Your task to perform on an android device: Show me popular videos on Youtube Image 0: 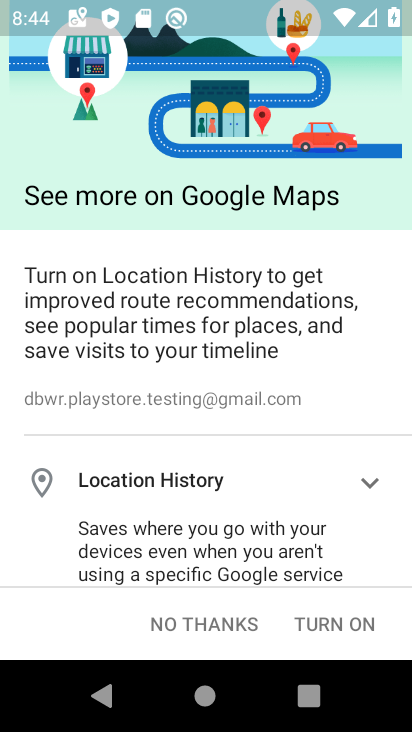
Step 0: press back button
Your task to perform on an android device: Show me popular videos on Youtube Image 1: 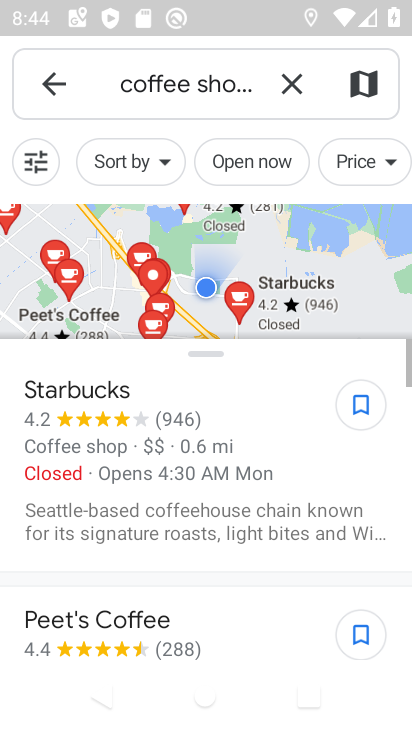
Step 1: press back button
Your task to perform on an android device: Show me popular videos on Youtube Image 2: 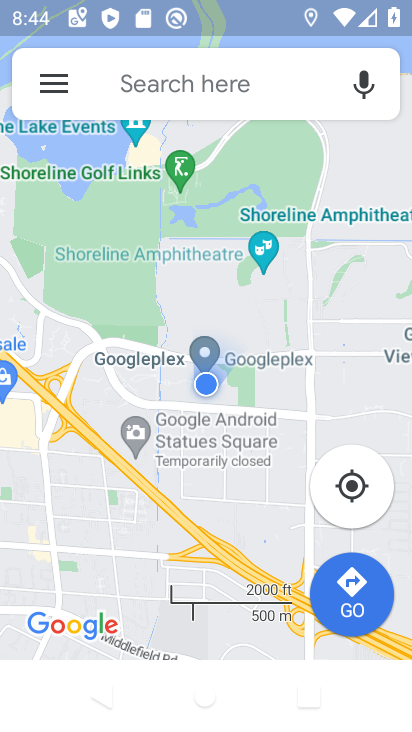
Step 2: press back button
Your task to perform on an android device: Show me popular videos on Youtube Image 3: 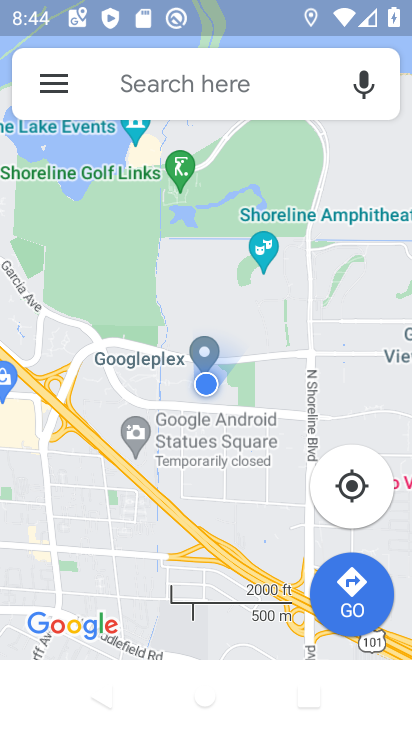
Step 3: press back button
Your task to perform on an android device: Show me popular videos on Youtube Image 4: 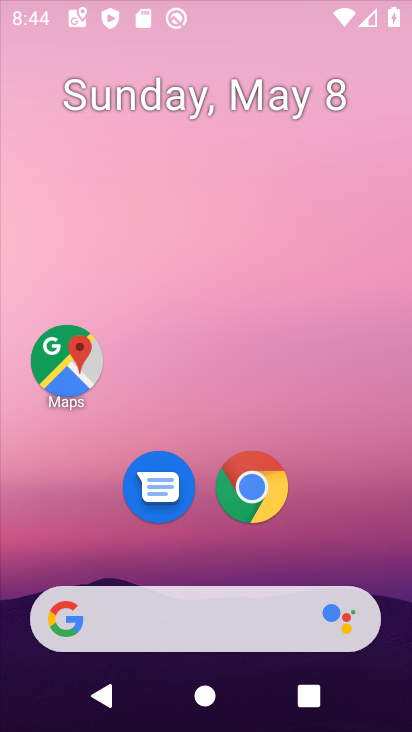
Step 4: press back button
Your task to perform on an android device: Show me popular videos on Youtube Image 5: 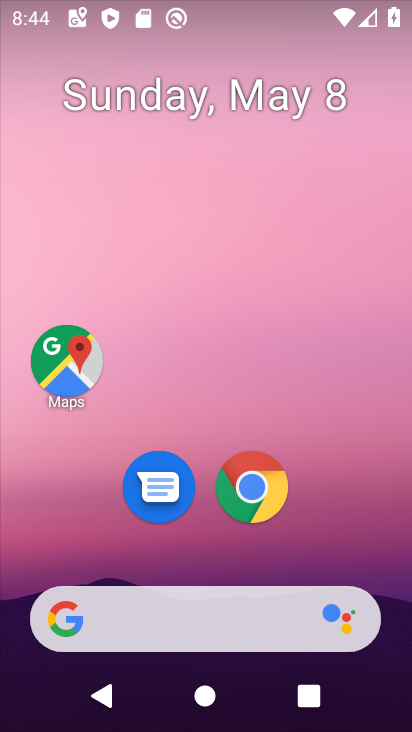
Step 5: drag from (265, 540) to (271, 95)
Your task to perform on an android device: Show me popular videos on Youtube Image 6: 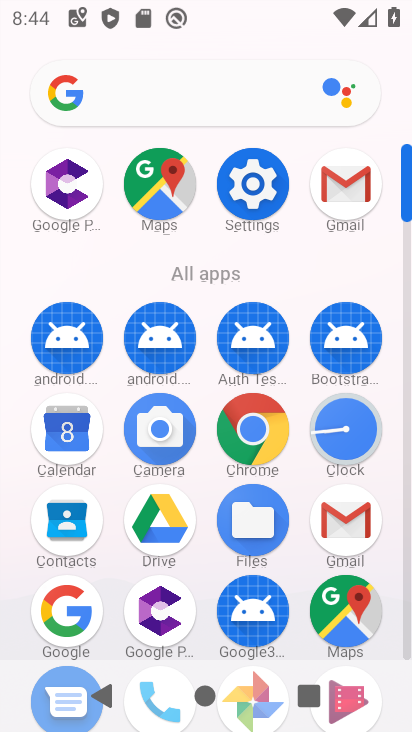
Step 6: drag from (190, 558) to (245, 194)
Your task to perform on an android device: Show me popular videos on Youtube Image 7: 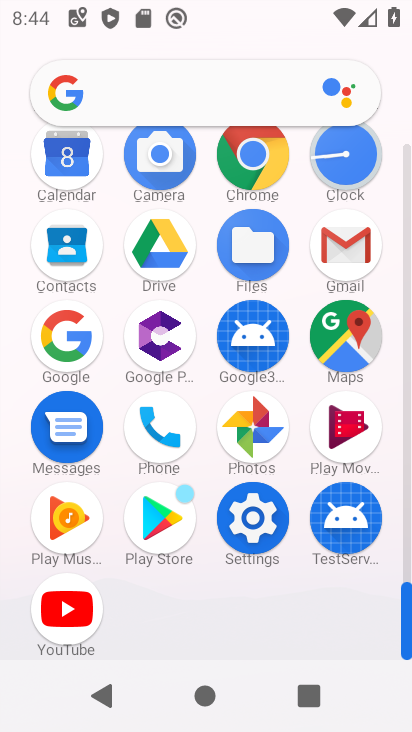
Step 7: click (57, 595)
Your task to perform on an android device: Show me popular videos on Youtube Image 8: 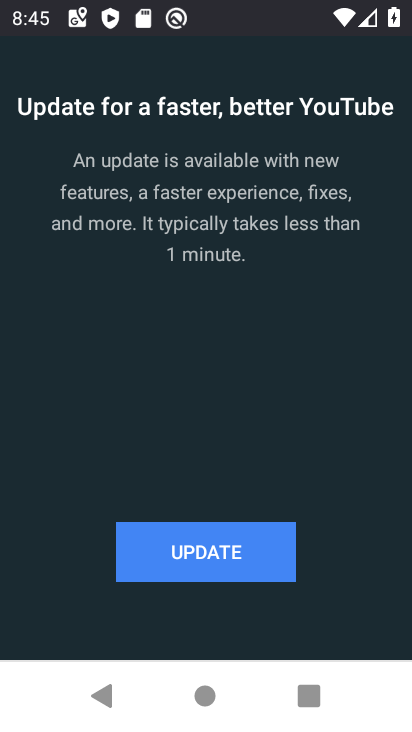
Step 8: click (204, 558)
Your task to perform on an android device: Show me popular videos on Youtube Image 9: 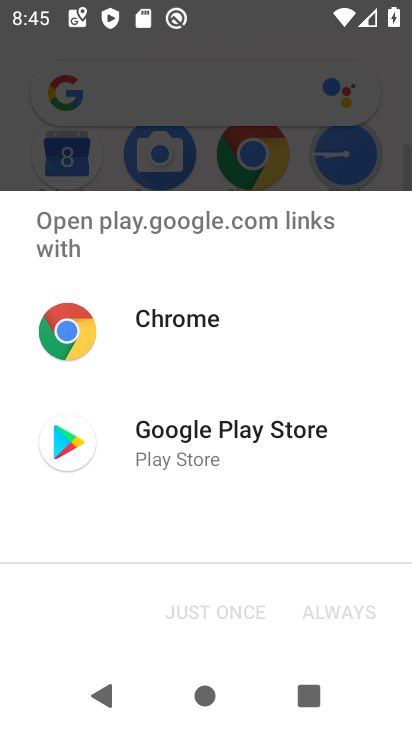
Step 9: click (169, 438)
Your task to perform on an android device: Show me popular videos on Youtube Image 10: 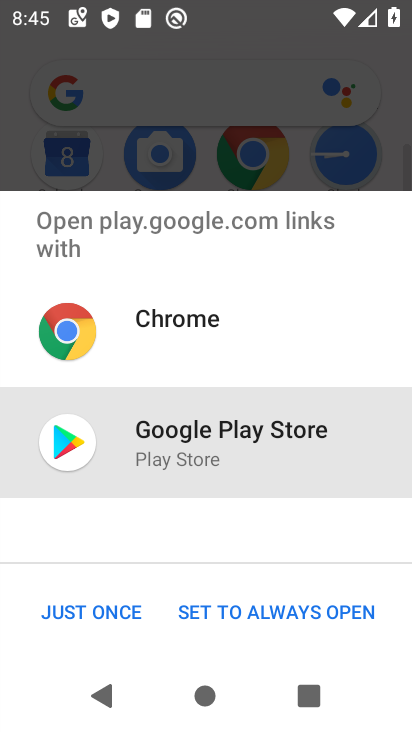
Step 10: click (39, 604)
Your task to perform on an android device: Show me popular videos on Youtube Image 11: 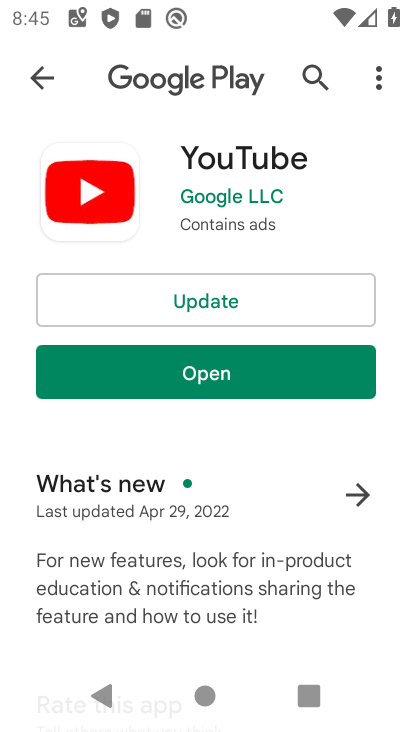
Step 11: click (205, 307)
Your task to perform on an android device: Show me popular videos on Youtube Image 12: 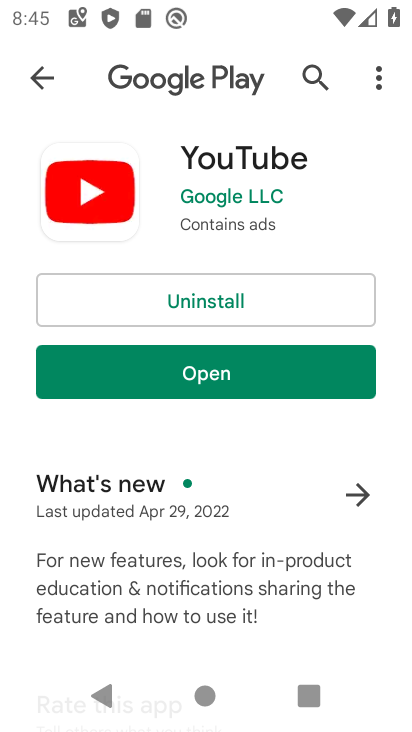
Step 12: click (214, 375)
Your task to perform on an android device: Show me popular videos on Youtube Image 13: 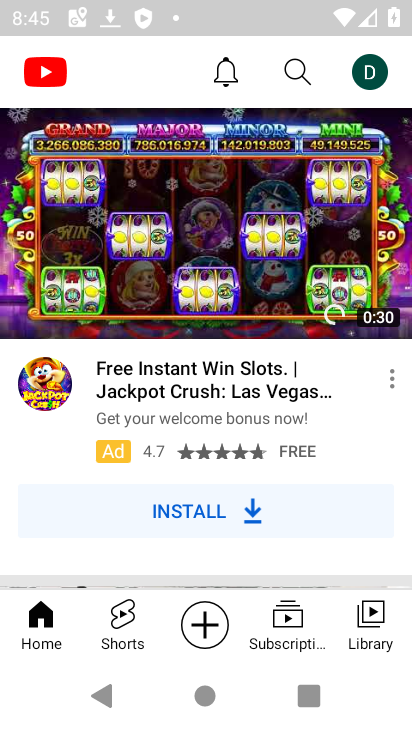
Step 13: click (289, 72)
Your task to perform on an android device: Show me popular videos on Youtube Image 14: 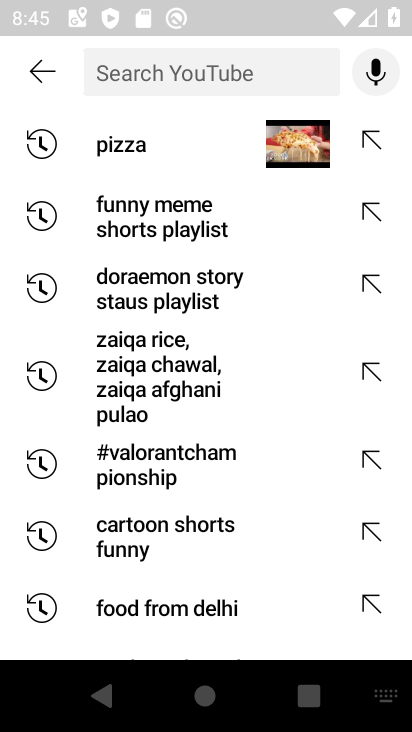
Step 14: type "popular videos"
Your task to perform on an android device: Show me popular videos on Youtube Image 15: 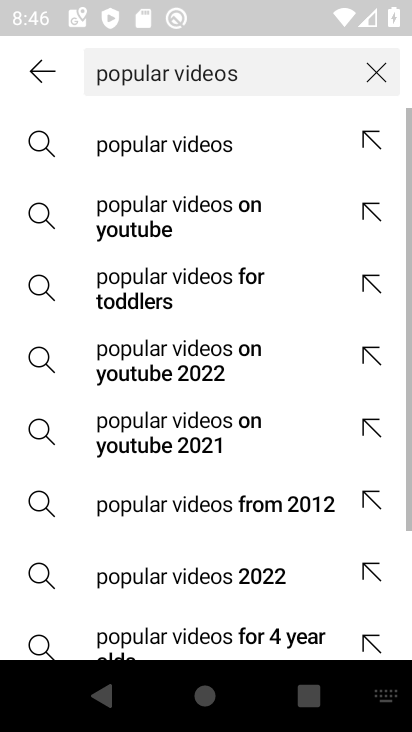
Step 15: click (225, 147)
Your task to perform on an android device: Show me popular videos on Youtube Image 16: 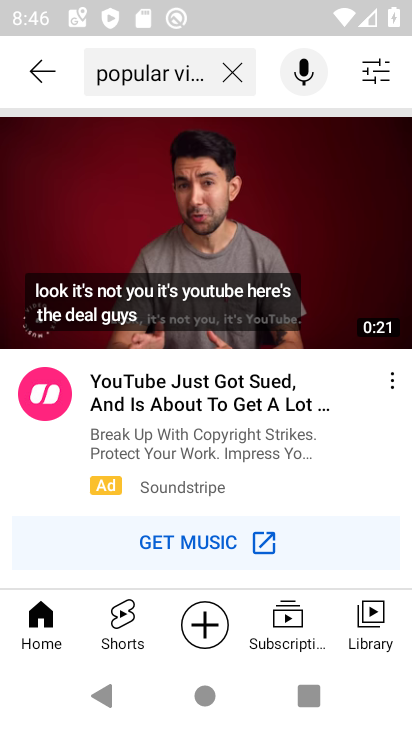
Step 16: task complete